Your task to perform on an android device: open app "Life360: Find Family & Friends" Image 0: 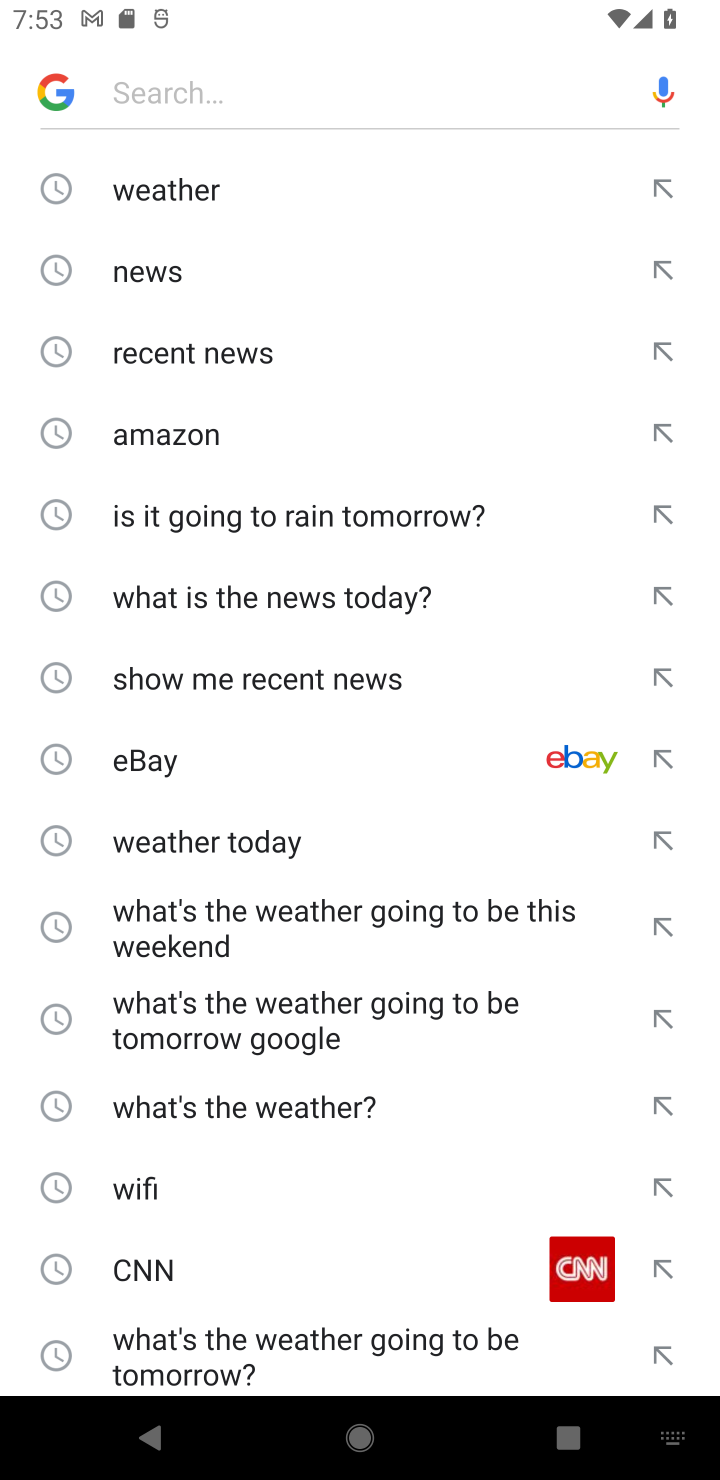
Step 0: press home button
Your task to perform on an android device: open app "Life360: Find Family & Friends" Image 1: 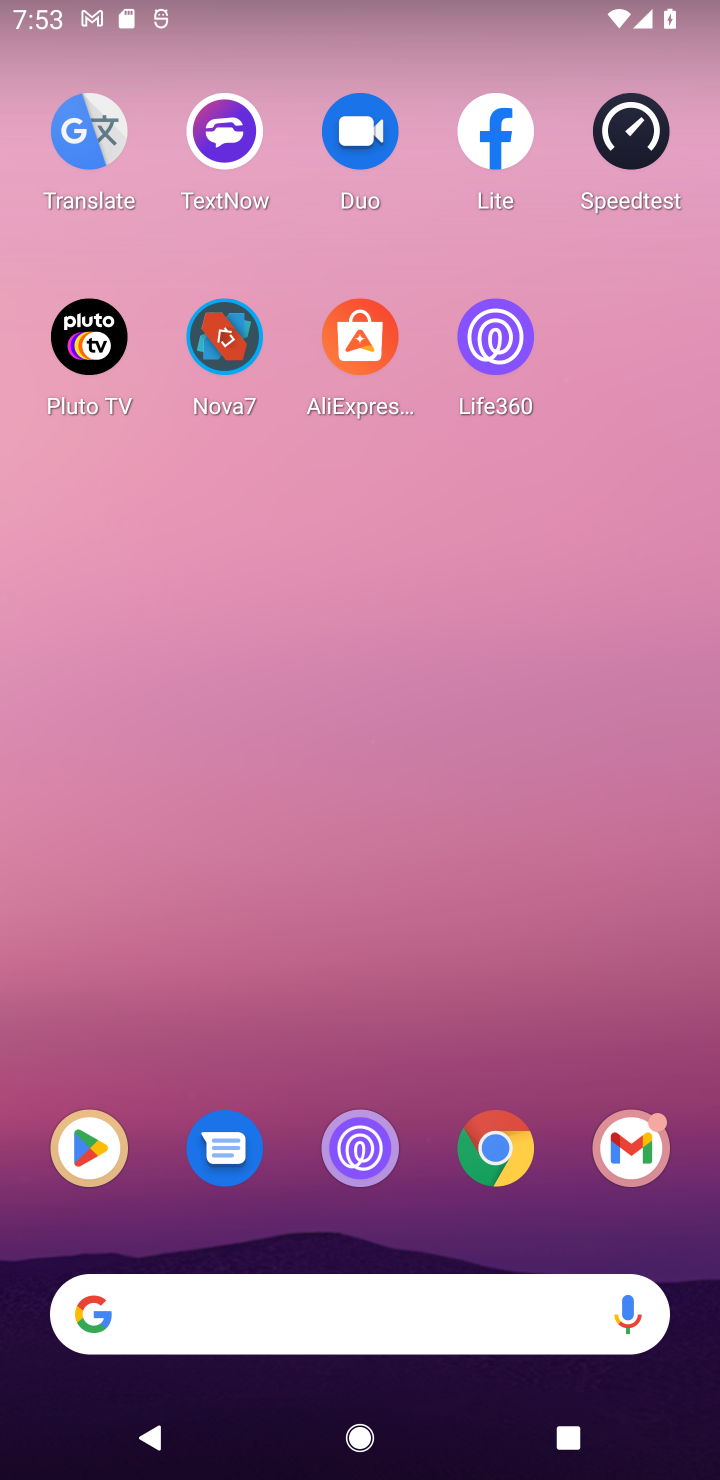
Step 1: drag from (461, 1243) to (185, 230)
Your task to perform on an android device: open app "Life360: Find Family & Friends" Image 2: 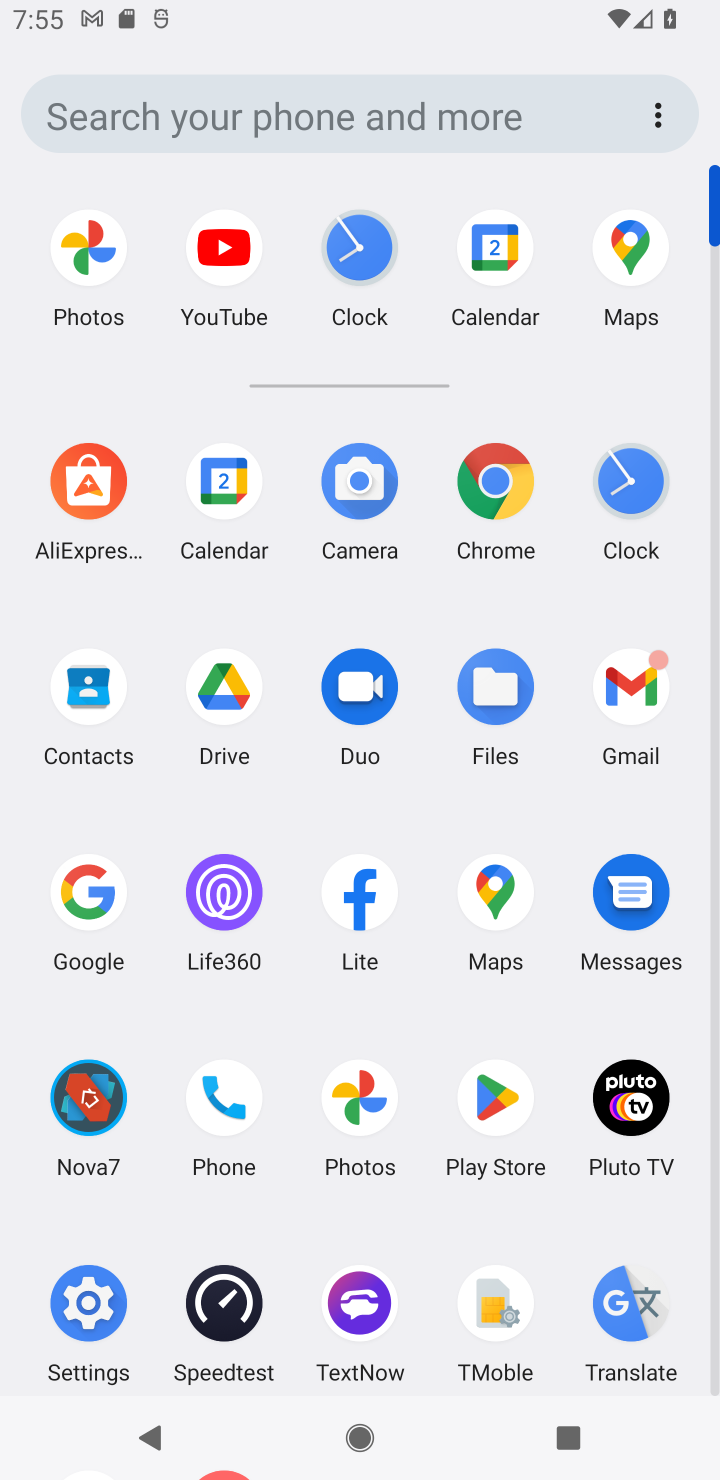
Step 2: click (501, 1099)
Your task to perform on an android device: open app "Life360: Find Family & Friends" Image 3: 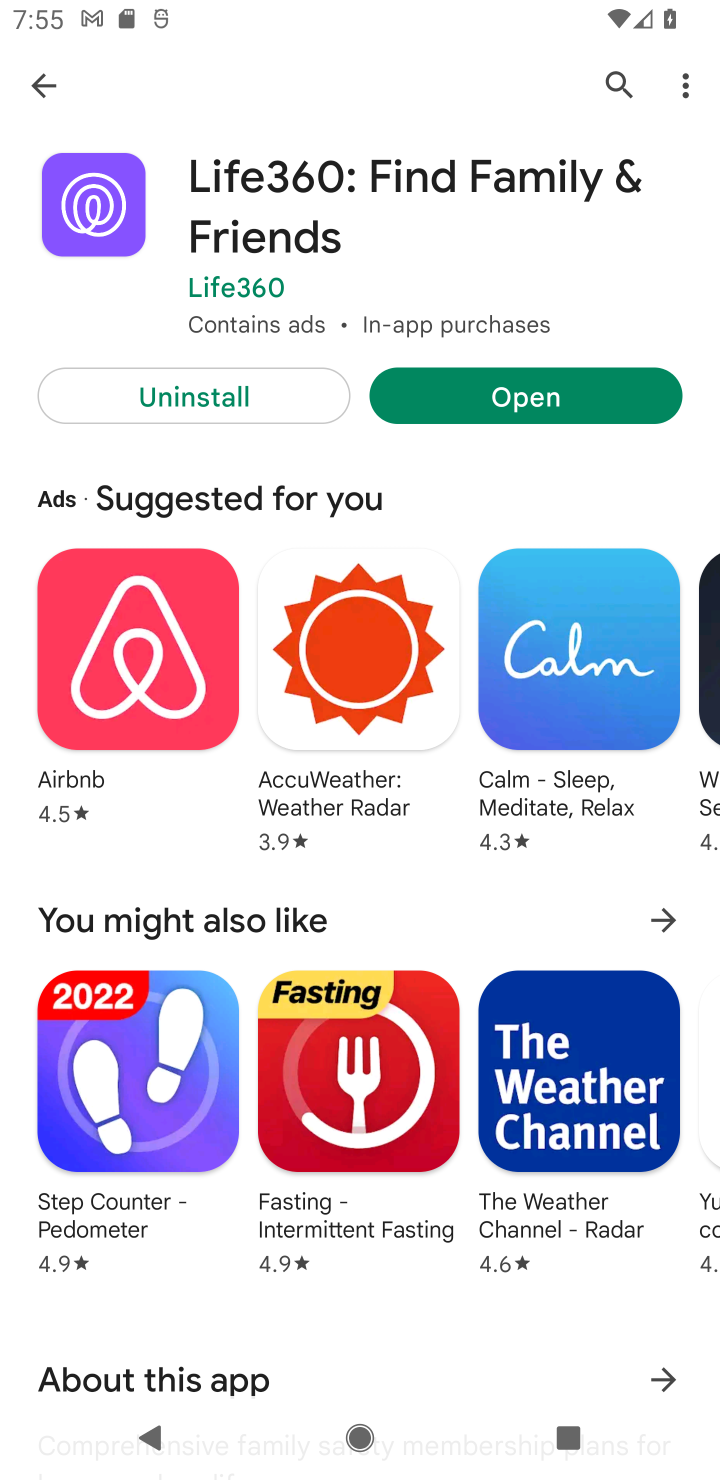
Step 3: click (617, 412)
Your task to perform on an android device: open app "Life360: Find Family & Friends" Image 4: 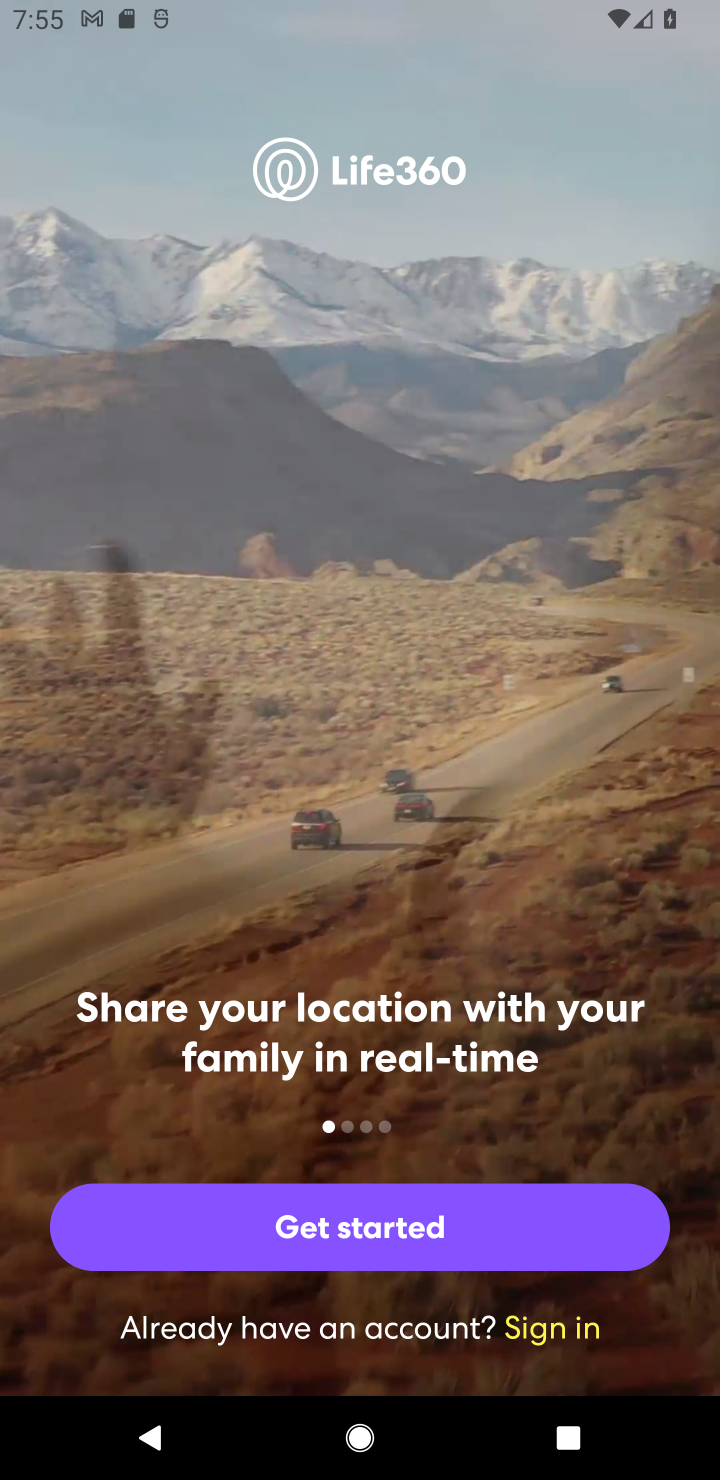
Step 4: task complete